Your task to perform on an android device: check android version Image 0: 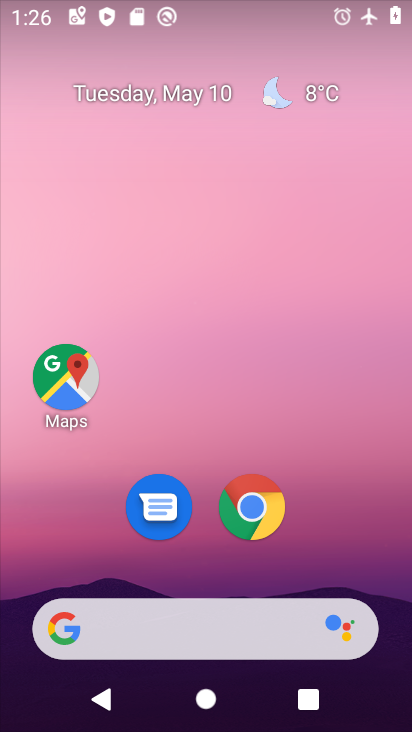
Step 0: drag from (216, 730) to (216, 99)
Your task to perform on an android device: check android version Image 1: 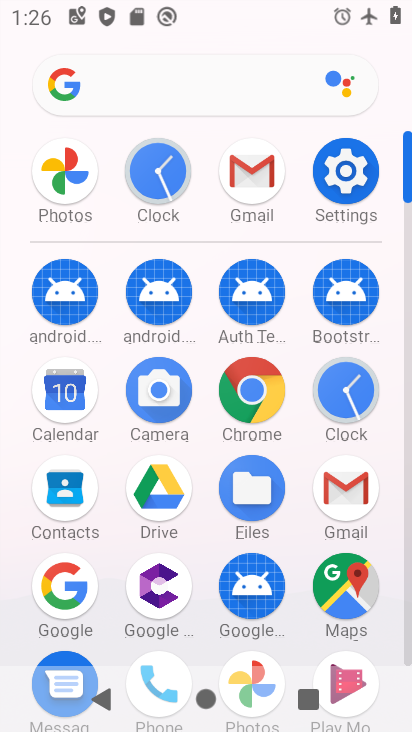
Step 1: click (338, 174)
Your task to perform on an android device: check android version Image 2: 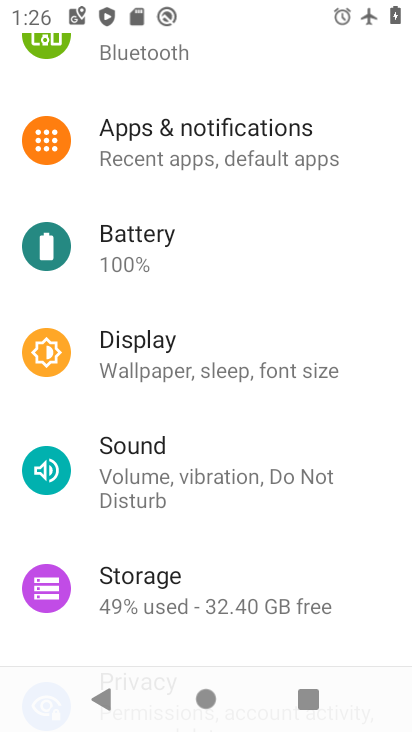
Step 2: drag from (225, 626) to (232, 233)
Your task to perform on an android device: check android version Image 3: 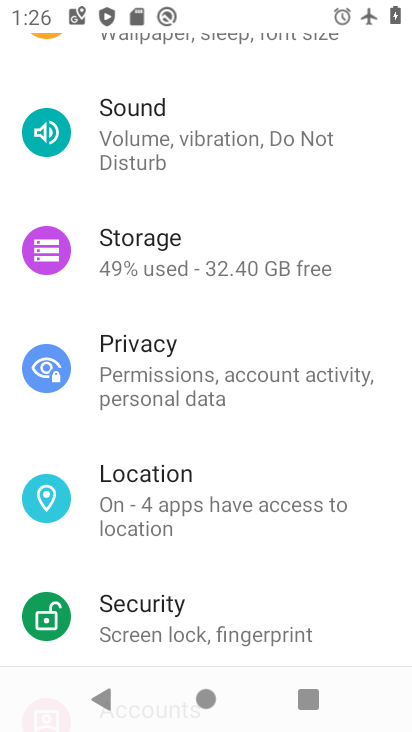
Step 3: drag from (231, 635) to (222, 265)
Your task to perform on an android device: check android version Image 4: 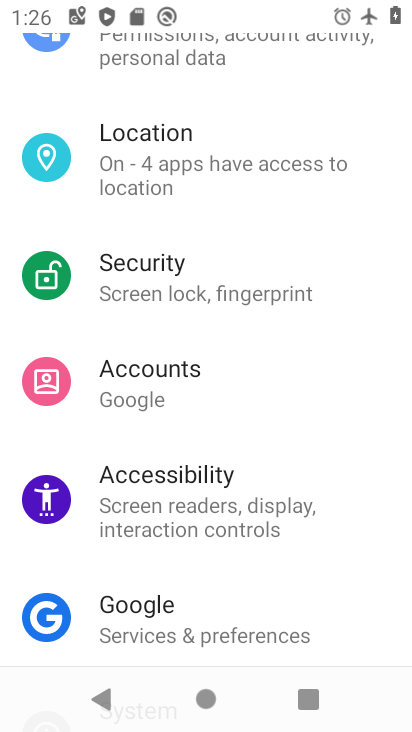
Step 4: drag from (203, 609) to (204, 310)
Your task to perform on an android device: check android version Image 5: 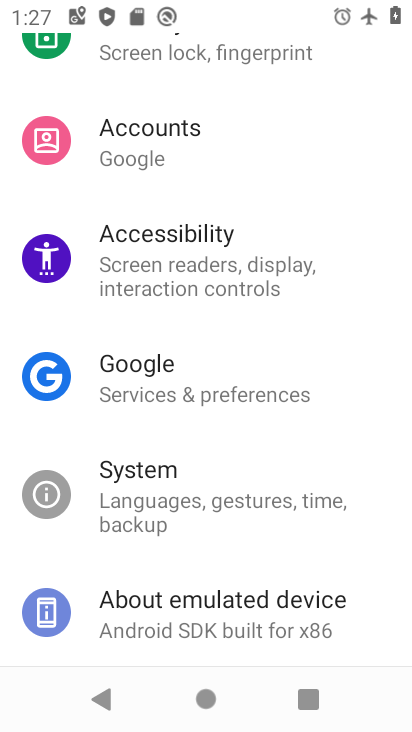
Step 5: click (174, 611)
Your task to perform on an android device: check android version Image 6: 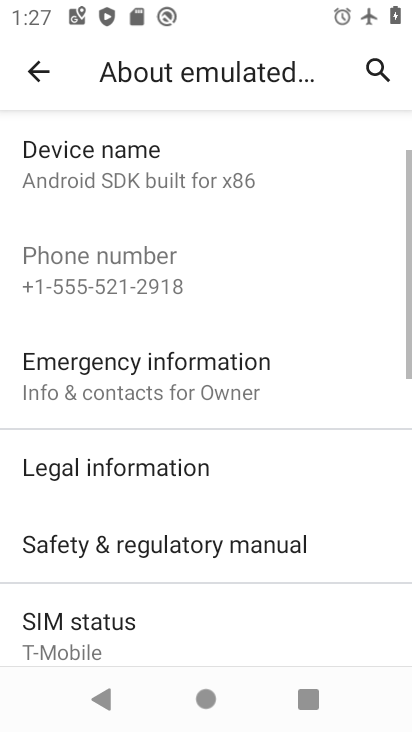
Step 6: drag from (176, 620) to (180, 251)
Your task to perform on an android device: check android version Image 7: 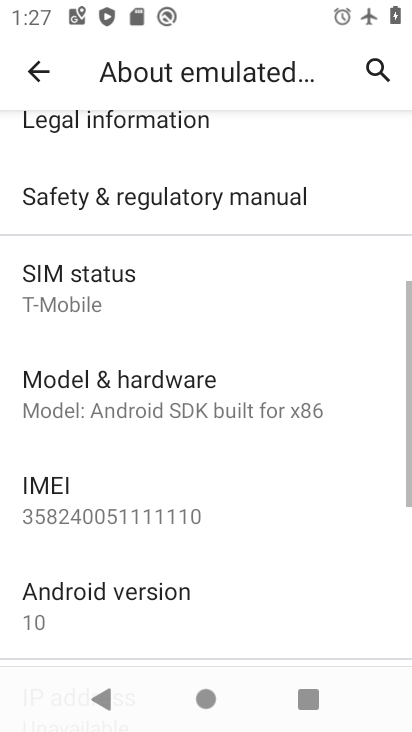
Step 7: click (130, 590)
Your task to perform on an android device: check android version Image 8: 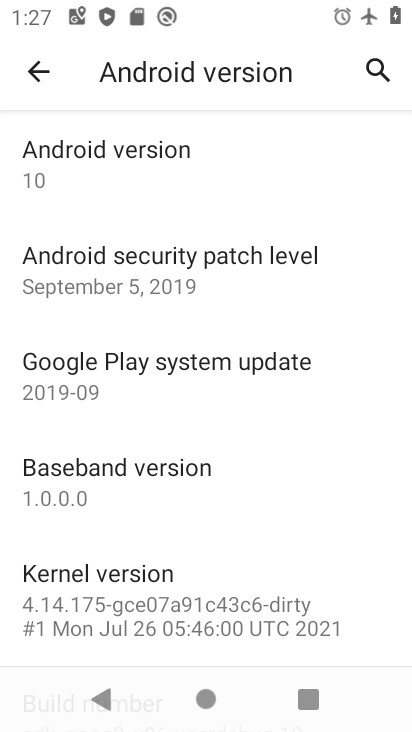
Step 8: task complete